Your task to perform on an android device: Go to Reddit.com Image 0: 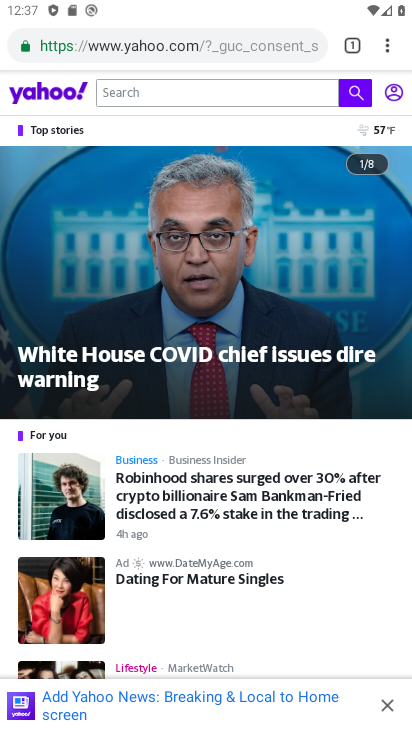
Step 0: press home button
Your task to perform on an android device: Go to Reddit.com Image 1: 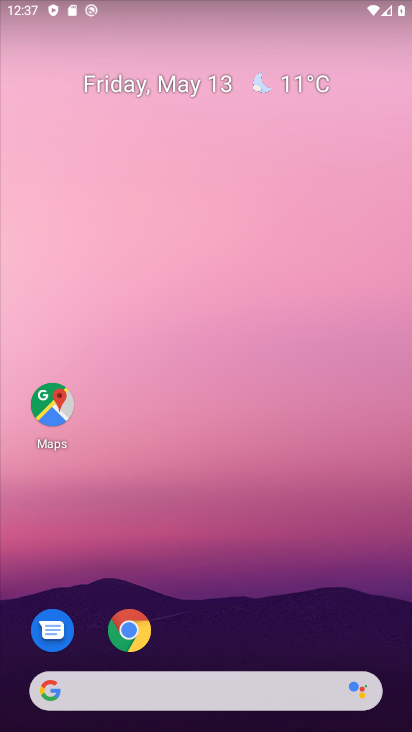
Step 1: drag from (345, 610) to (312, 208)
Your task to perform on an android device: Go to Reddit.com Image 2: 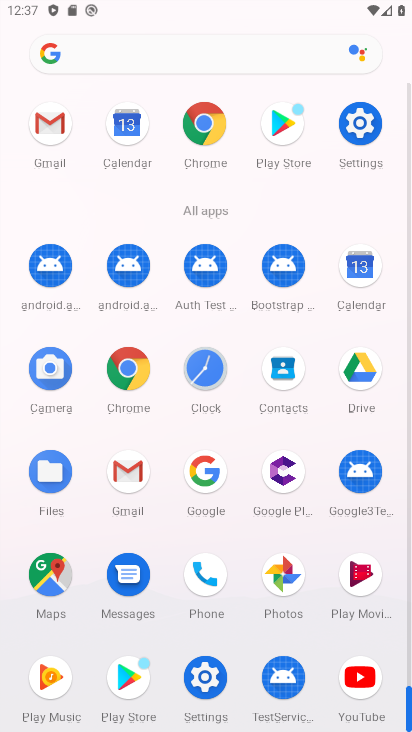
Step 2: click (132, 384)
Your task to perform on an android device: Go to Reddit.com Image 3: 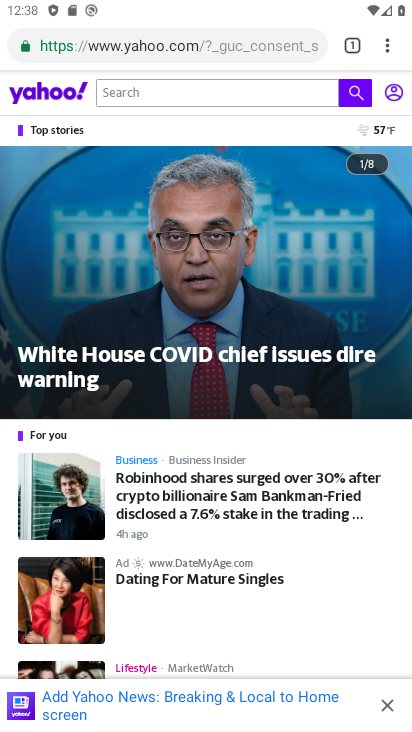
Step 3: click (347, 44)
Your task to perform on an android device: Go to Reddit.com Image 4: 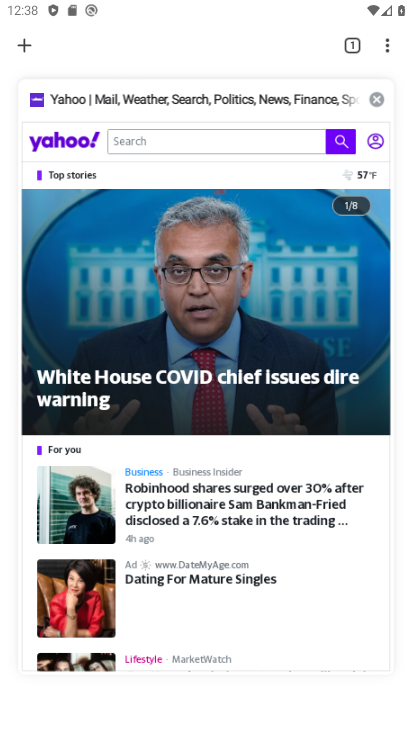
Step 4: click (33, 52)
Your task to perform on an android device: Go to Reddit.com Image 5: 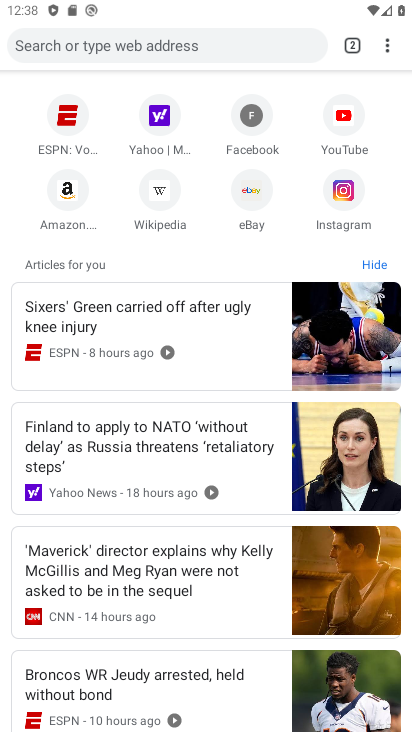
Step 5: click (187, 53)
Your task to perform on an android device: Go to Reddit.com Image 6: 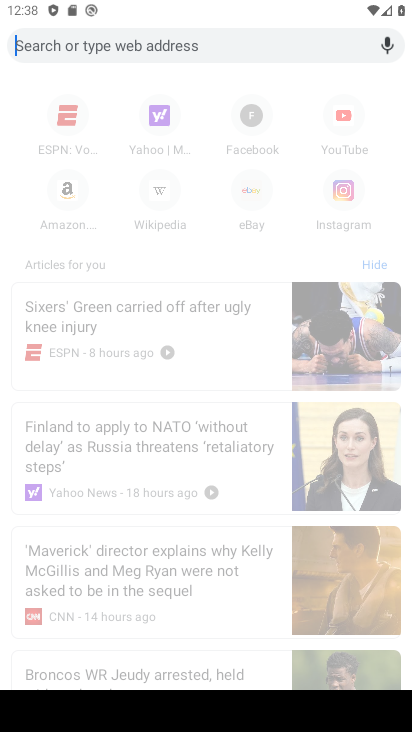
Step 6: type "reddit.com"
Your task to perform on an android device: Go to Reddit.com Image 7: 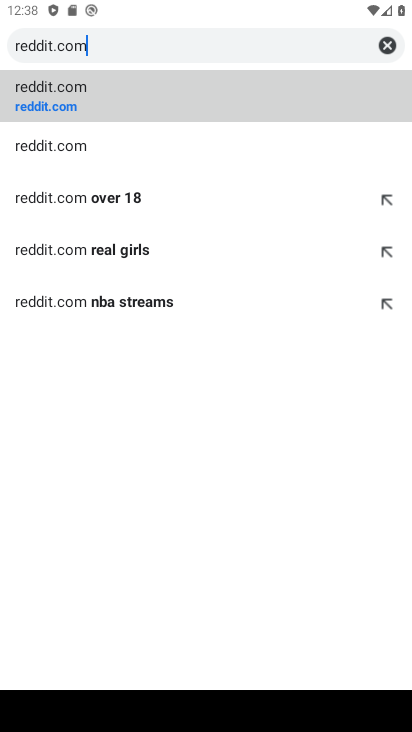
Step 7: type ""
Your task to perform on an android device: Go to Reddit.com Image 8: 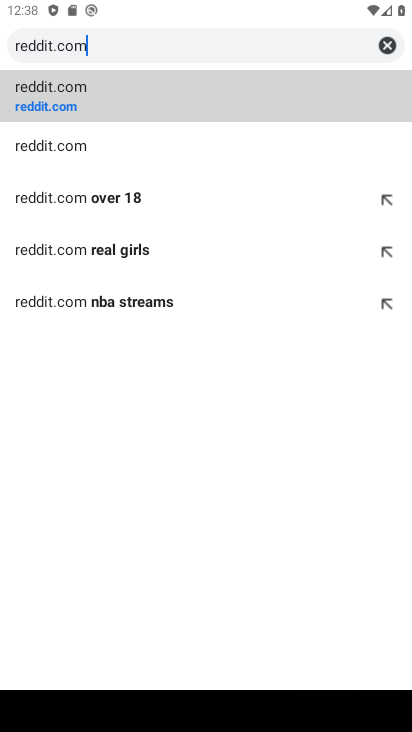
Step 8: click (75, 107)
Your task to perform on an android device: Go to Reddit.com Image 9: 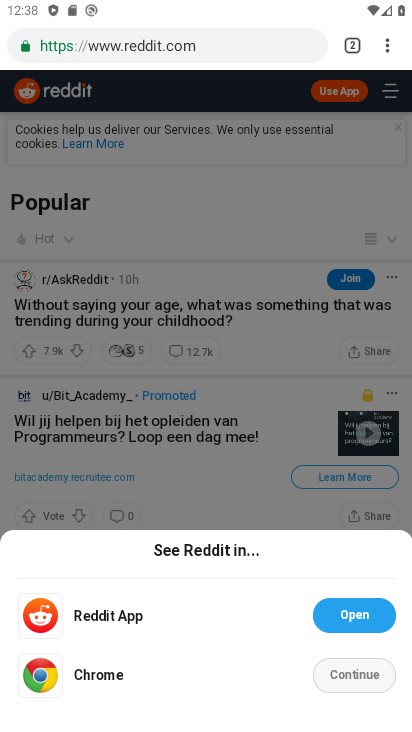
Step 9: click (360, 673)
Your task to perform on an android device: Go to Reddit.com Image 10: 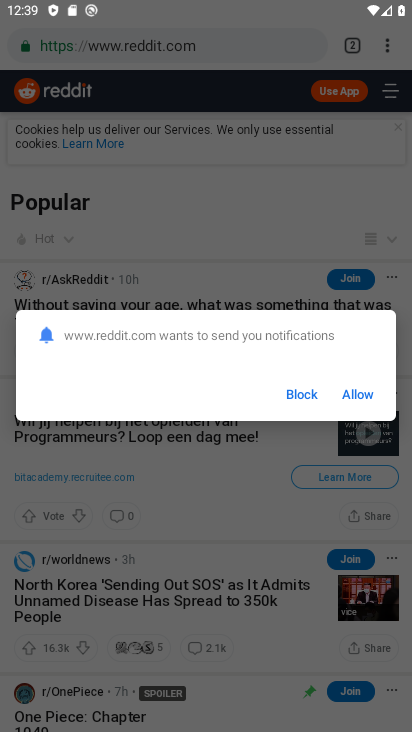
Step 10: click (362, 394)
Your task to perform on an android device: Go to Reddit.com Image 11: 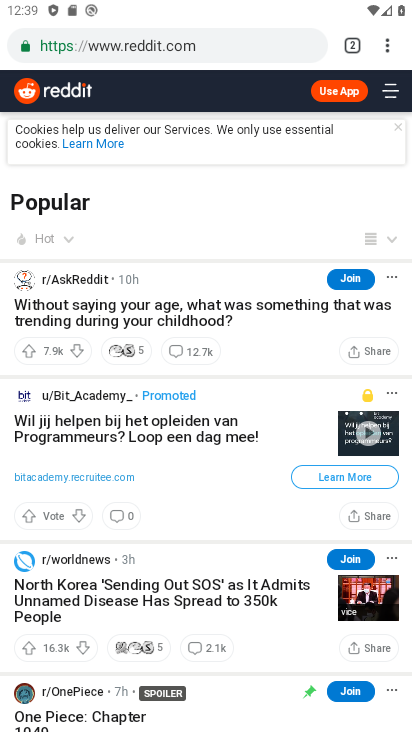
Step 11: task complete